Your task to perform on an android device: Show the shopping cart on target. Search for "beats solo 3" on target, select the first entry, add it to the cart, then select checkout. Image 0: 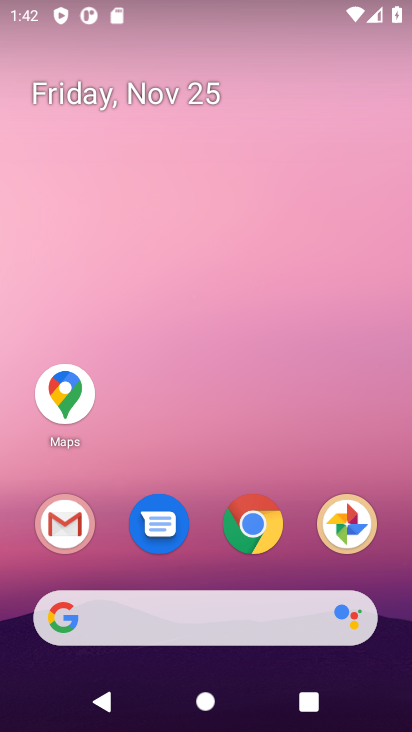
Step 0: click (249, 526)
Your task to perform on an android device: Show the shopping cart on target. Search for "beats solo 3" on target, select the first entry, add it to the cart, then select checkout. Image 1: 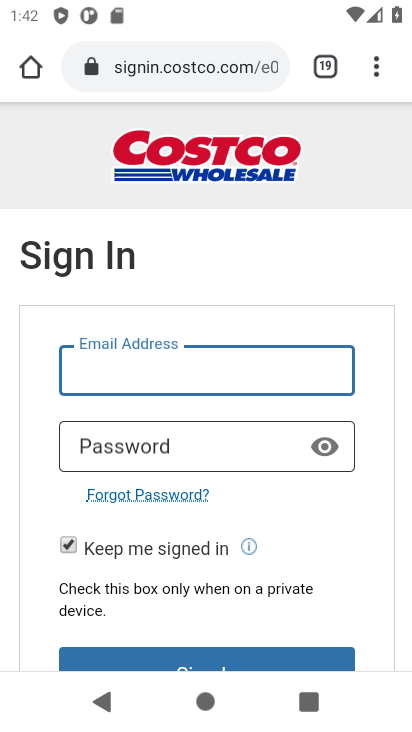
Step 1: click (172, 71)
Your task to perform on an android device: Show the shopping cart on target. Search for "beats solo 3" on target, select the first entry, add it to the cart, then select checkout. Image 2: 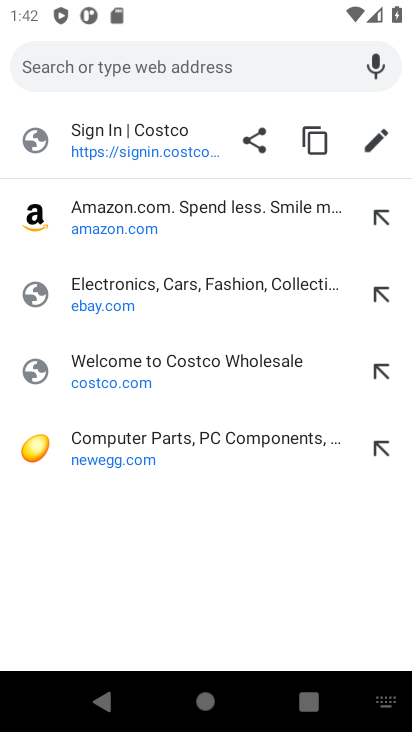
Step 2: type "target.com"
Your task to perform on an android device: Show the shopping cart on target. Search for "beats solo 3" on target, select the first entry, add it to the cart, then select checkout. Image 3: 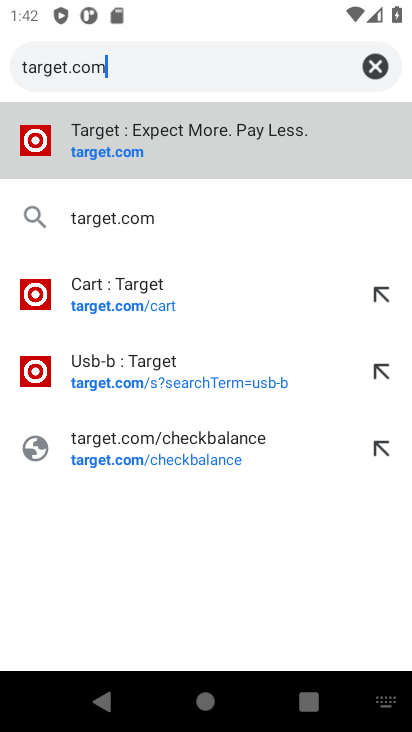
Step 3: click (81, 137)
Your task to perform on an android device: Show the shopping cart on target. Search for "beats solo 3" on target, select the first entry, add it to the cart, then select checkout. Image 4: 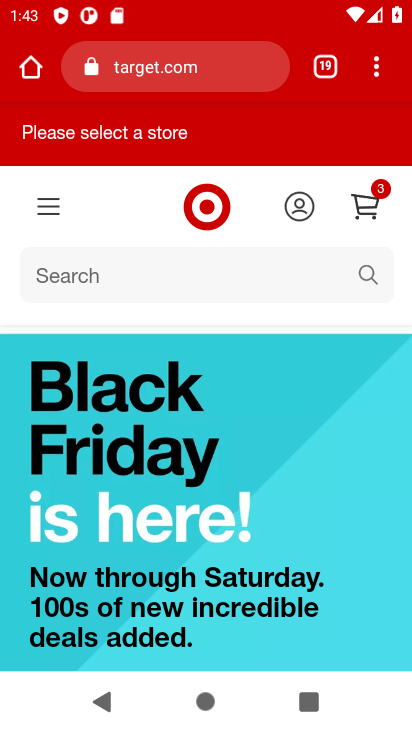
Step 4: click (363, 201)
Your task to perform on an android device: Show the shopping cart on target. Search for "beats solo 3" on target, select the first entry, add it to the cart, then select checkout. Image 5: 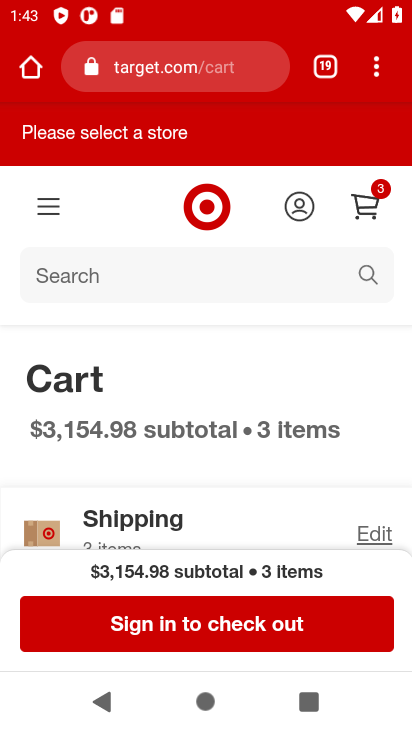
Step 5: drag from (232, 438) to (234, 264)
Your task to perform on an android device: Show the shopping cart on target. Search for "beats solo 3" on target, select the first entry, add it to the cart, then select checkout. Image 6: 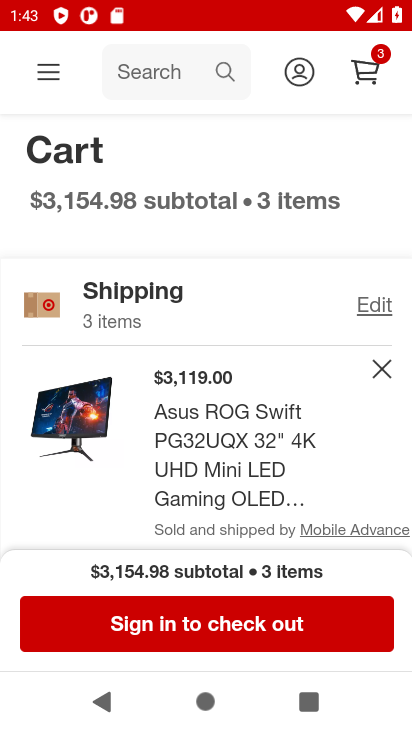
Step 6: drag from (286, 264) to (283, 436)
Your task to perform on an android device: Show the shopping cart on target. Search for "beats solo 3" on target, select the first entry, add it to the cart, then select checkout. Image 7: 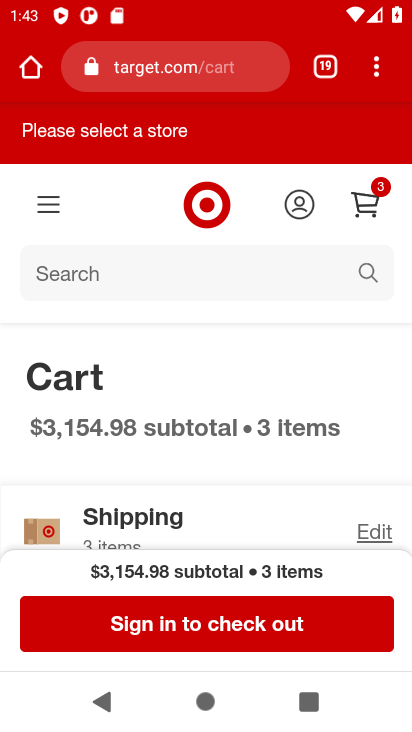
Step 7: click (366, 274)
Your task to perform on an android device: Show the shopping cart on target. Search for "beats solo 3" on target, select the first entry, add it to the cart, then select checkout. Image 8: 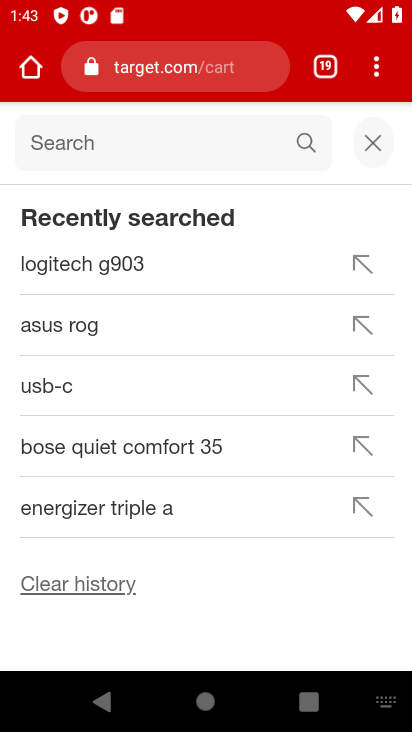
Step 8: type "beats solo 3"
Your task to perform on an android device: Show the shopping cart on target. Search for "beats solo 3" on target, select the first entry, add it to the cart, then select checkout. Image 9: 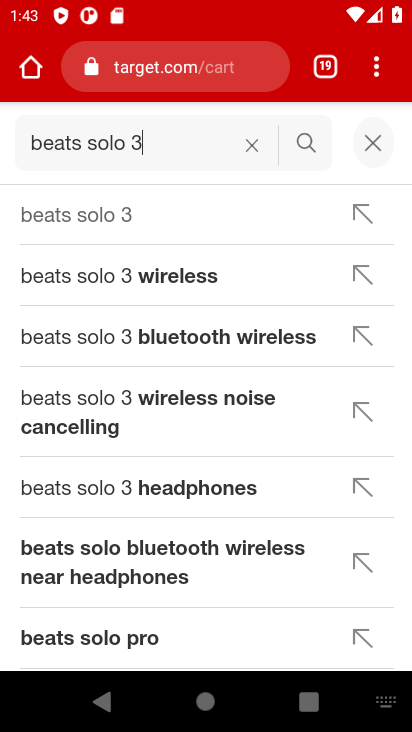
Step 9: click (89, 218)
Your task to perform on an android device: Show the shopping cart on target. Search for "beats solo 3" on target, select the first entry, add it to the cart, then select checkout. Image 10: 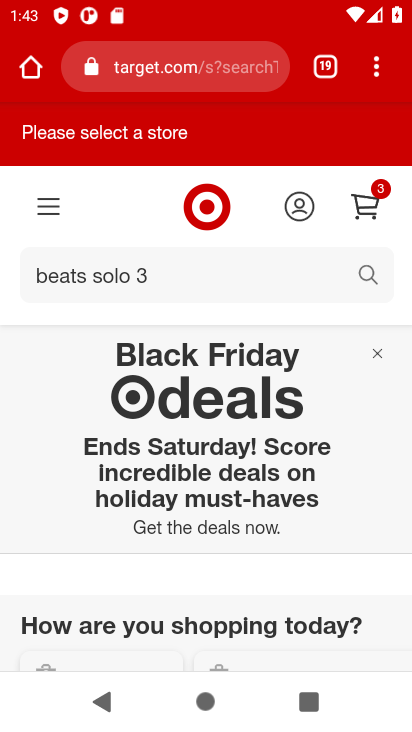
Step 10: drag from (225, 519) to (218, 147)
Your task to perform on an android device: Show the shopping cart on target. Search for "beats solo 3" on target, select the first entry, add it to the cart, then select checkout. Image 11: 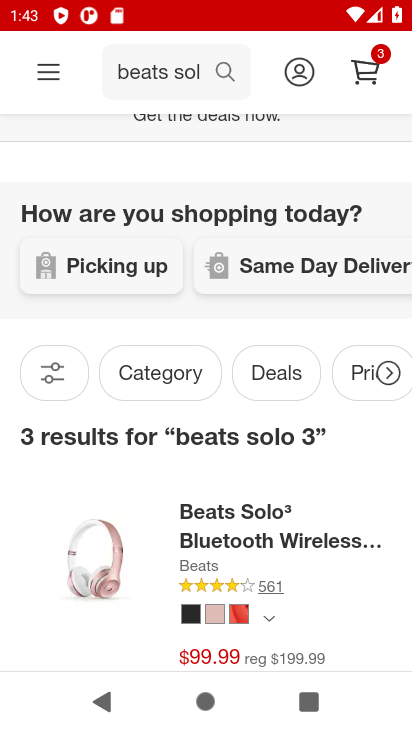
Step 11: drag from (199, 385) to (199, 151)
Your task to perform on an android device: Show the shopping cart on target. Search for "beats solo 3" on target, select the first entry, add it to the cart, then select checkout. Image 12: 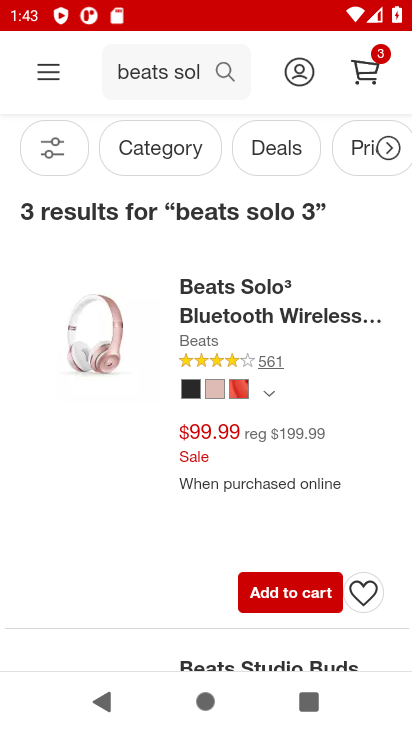
Step 12: click (287, 581)
Your task to perform on an android device: Show the shopping cart on target. Search for "beats solo 3" on target, select the first entry, add it to the cart, then select checkout. Image 13: 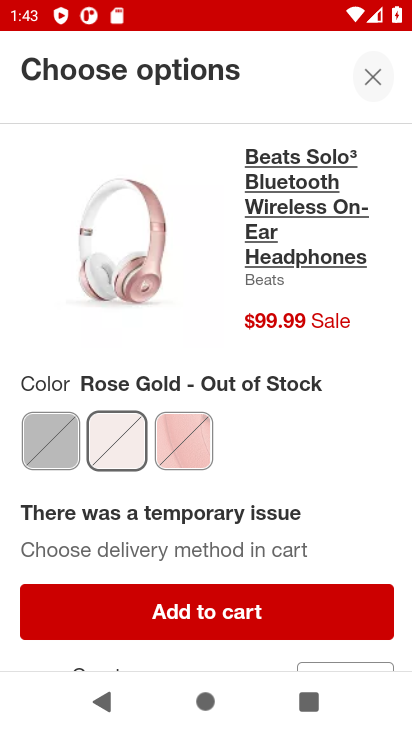
Step 13: click (196, 606)
Your task to perform on an android device: Show the shopping cart on target. Search for "beats solo 3" on target, select the first entry, add it to the cart, then select checkout. Image 14: 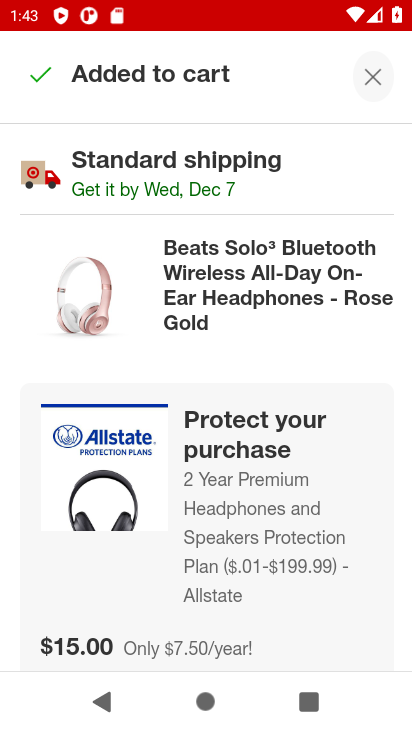
Step 14: drag from (236, 527) to (238, 456)
Your task to perform on an android device: Show the shopping cart on target. Search for "beats solo 3" on target, select the first entry, add it to the cart, then select checkout. Image 15: 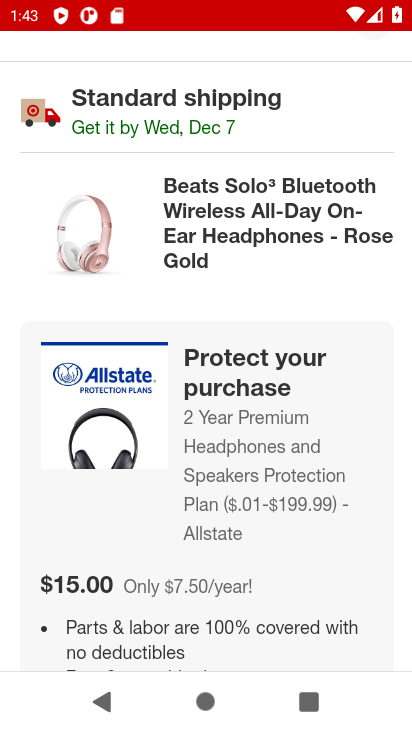
Step 15: drag from (326, 114) to (339, 313)
Your task to perform on an android device: Show the shopping cart on target. Search for "beats solo 3" on target, select the first entry, add it to the cart, then select checkout. Image 16: 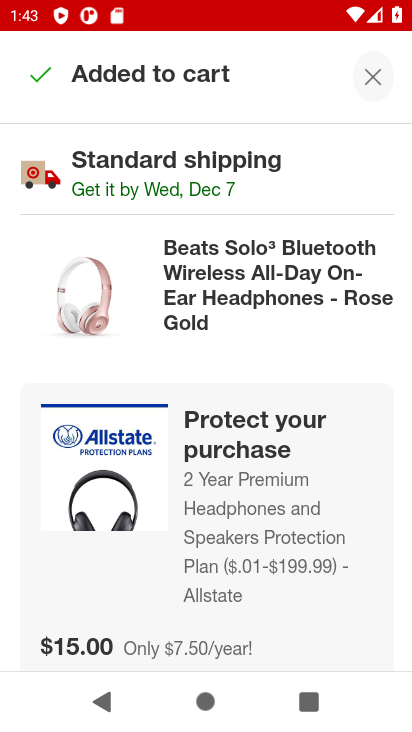
Step 16: click (366, 79)
Your task to perform on an android device: Show the shopping cart on target. Search for "beats solo 3" on target, select the first entry, add it to the cart, then select checkout. Image 17: 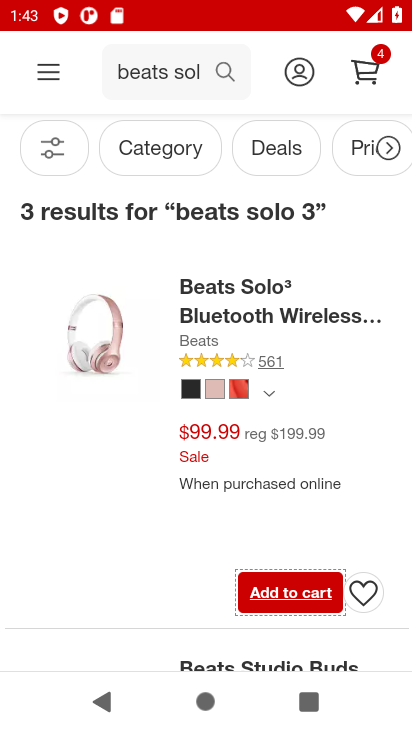
Step 17: click (373, 61)
Your task to perform on an android device: Show the shopping cart on target. Search for "beats solo 3" on target, select the first entry, add it to the cart, then select checkout. Image 18: 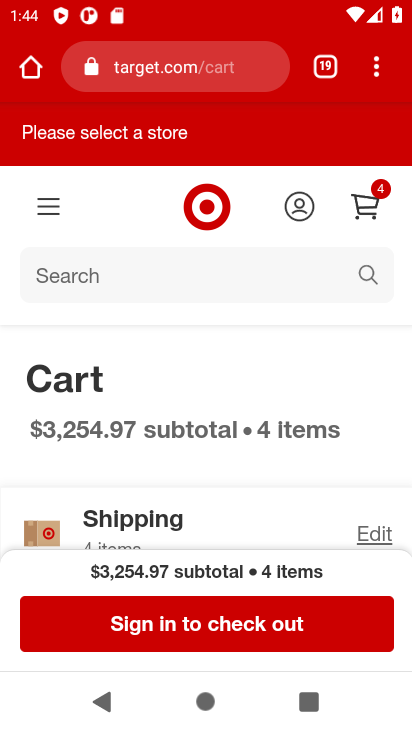
Step 18: click (221, 635)
Your task to perform on an android device: Show the shopping cart on target. Search for "beats solo 3" on target, select the first entry, add it to the cart, then select checkout. Image 19: 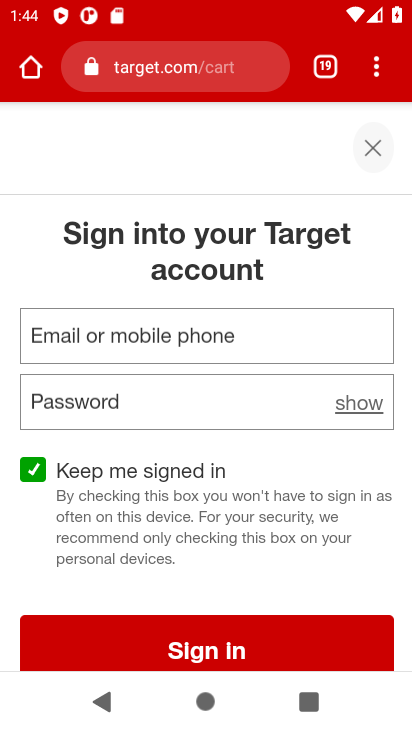
Step 19: task complete